Your task to perform on an android device: What's the weather going to be this weekend? Image 0: 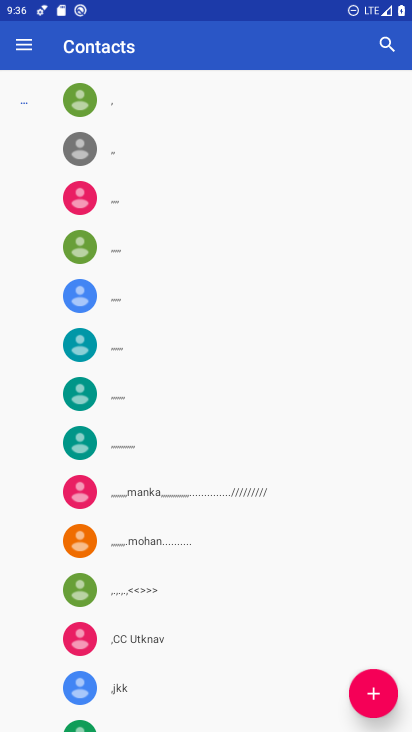
Step 0: drag from (233, 545) to (300, 281)
Your task to perform on an android device: What's the weather going to be this weekend? Image 1: 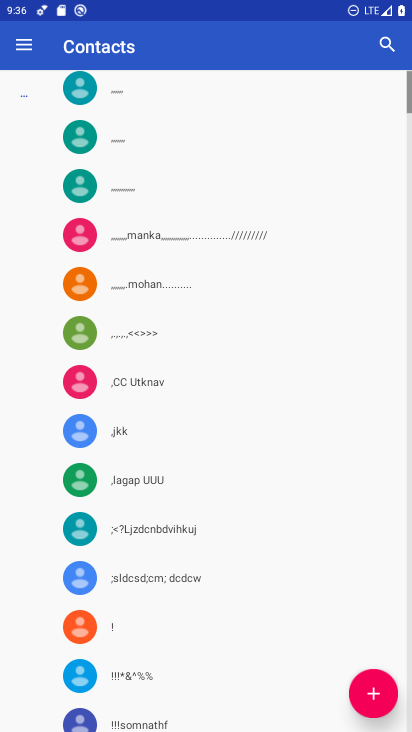
Step 1: press home button
Your task to perform on an android device: What's the weather going to be this weekend? Image 2: 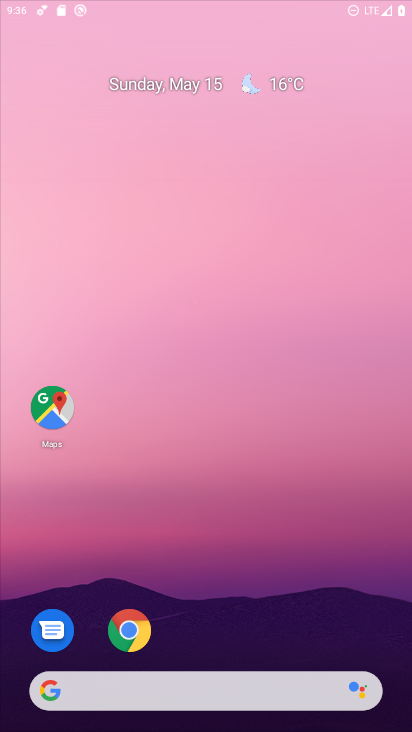
Step 2: drag from (287, 664) to (308, 204)
Your task to perform on an android device: What's the weather going to be this weekend? Image 3: 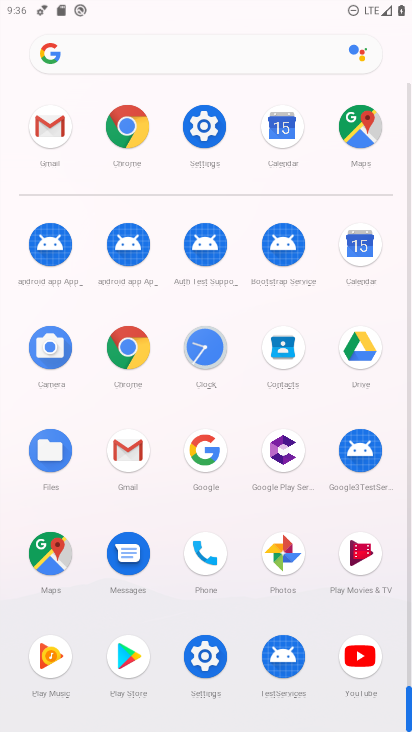
Step 3: click (154, 57)
Your task to perform on an android device: What's the weather going to be this weekend? Image 4: 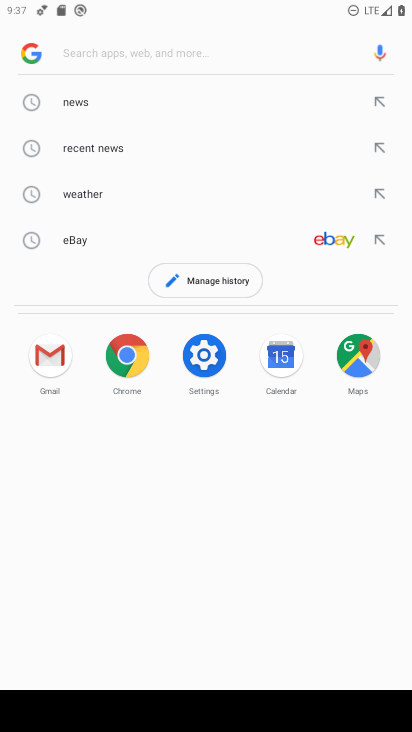
Step 4: click (136, 55)
Your task to perform on an android device: What's the weather going to be this weekend? Image 5: 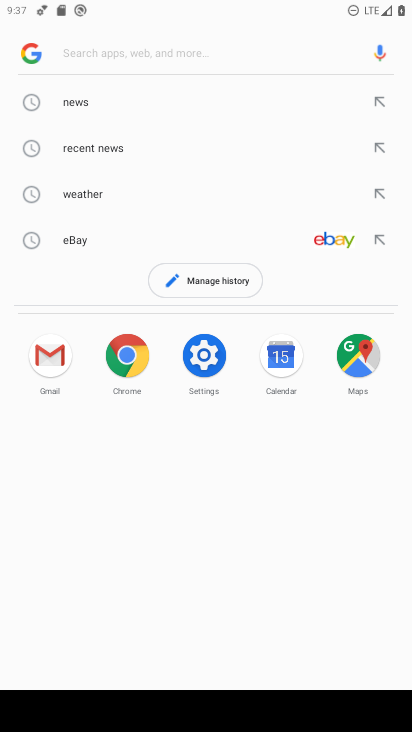
Step 5: type "weather going to be this weekend"
Your task to perform on an android device: What's the weather going to be this weekend? Image 6: 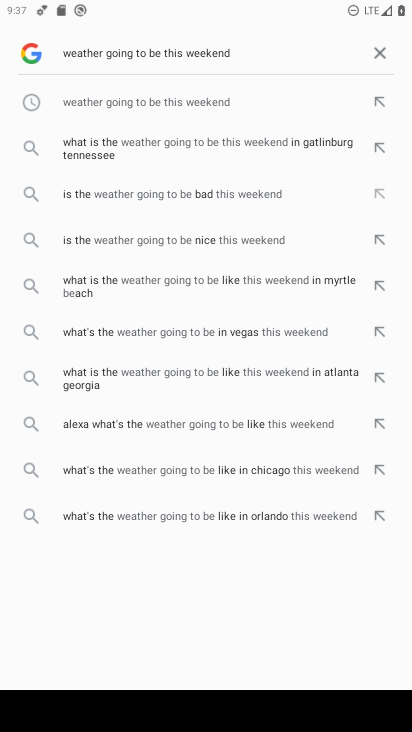
Step 6: click (159, 113)
Your task to perform on an android device: What's the weather going to be this weekend? Image 7: 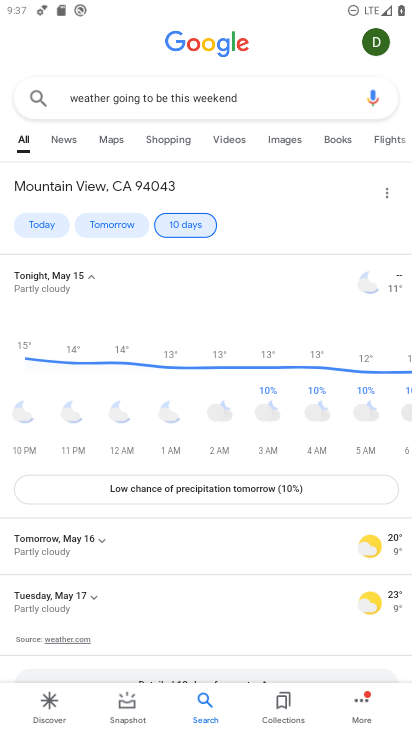
Step 7: task complete